Your task to perform on an android device: set an alarm Image 0: 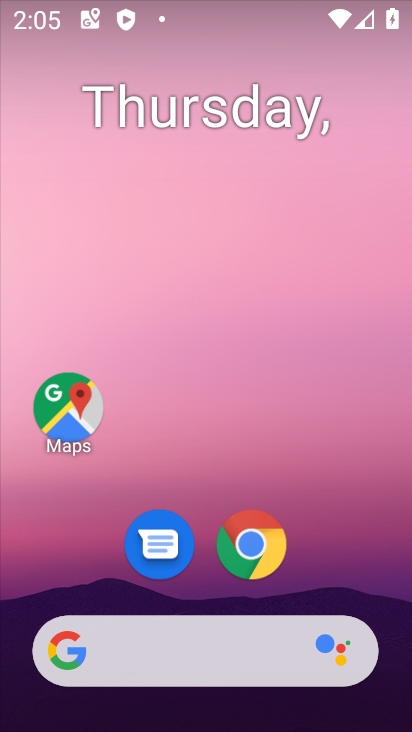
Step 0: click (307, 126)
Your task to perform on an android device: set an alarm Image 1: 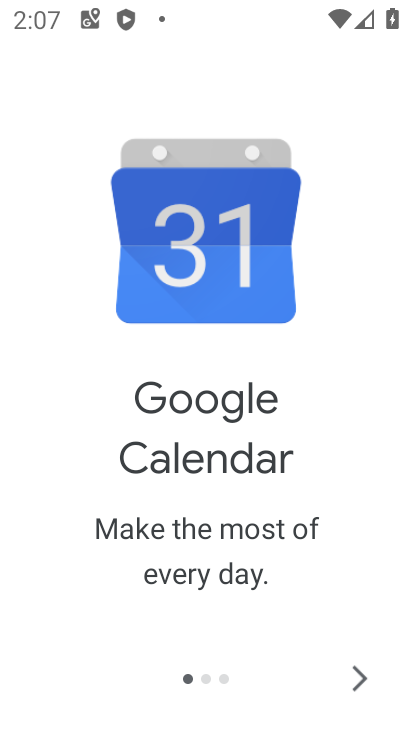
Step 1: press home button
Your task to perform on an android device: set an alarm Image 2: 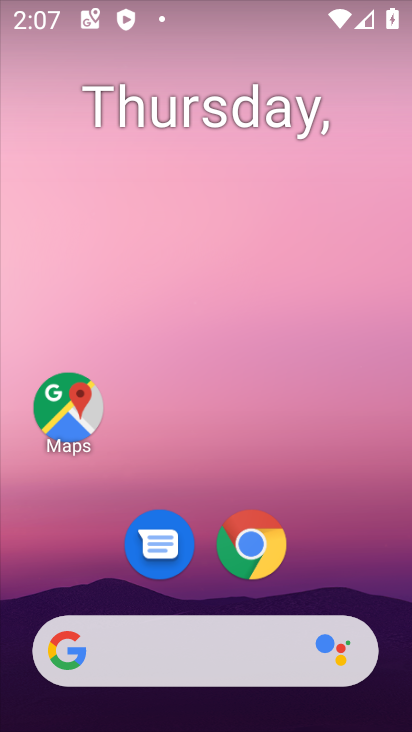
Step 2: drag from (349, 551) to (407, 40)
Your task to perform on an android device: set an alarm Image 3: 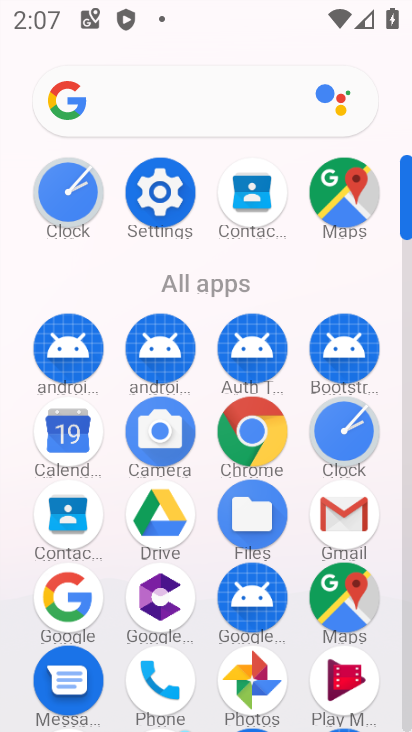
Step 3: click (361, 446)
Your task to perform on an android device: set an alarm Image 4: 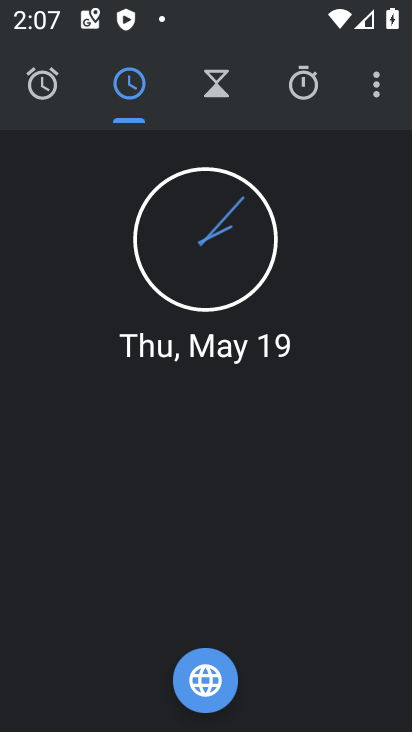
Step 4: click (52, 103)
Your task to perform on an android device: set an alarm Image 5: 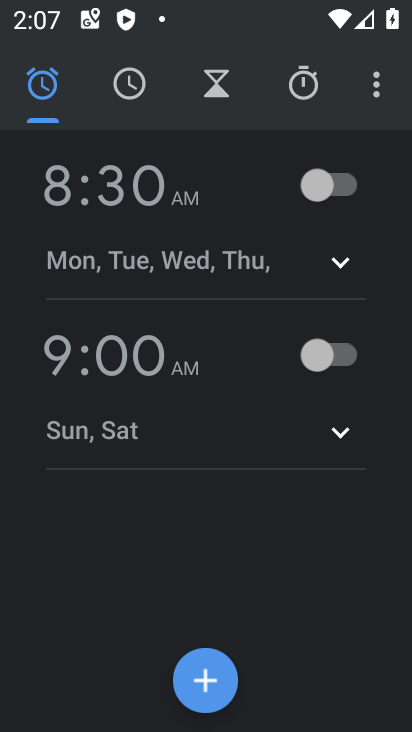
Step 5: click (344, 184)
Your task to perform on an android device: set an alarm Image 6: 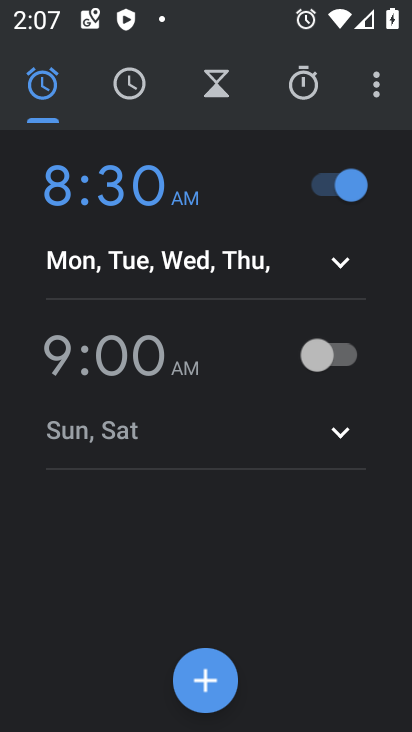
Step 6: task complete